Your task to perform on an android device: Go to Maps Image 0: 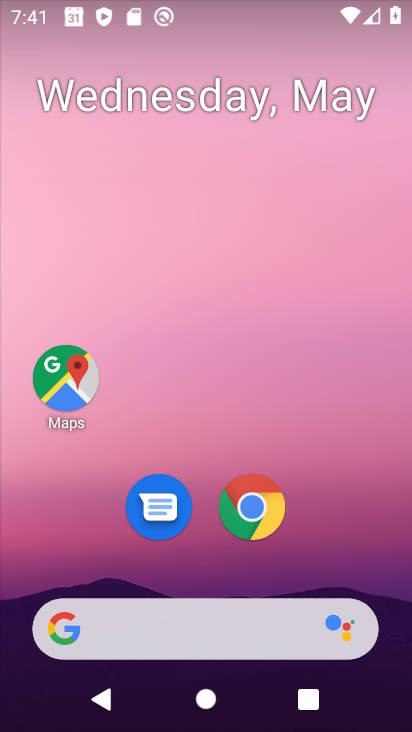
Step 0: click (53, 371)
Your task to perform on an android device: Go to Maps Image 1: 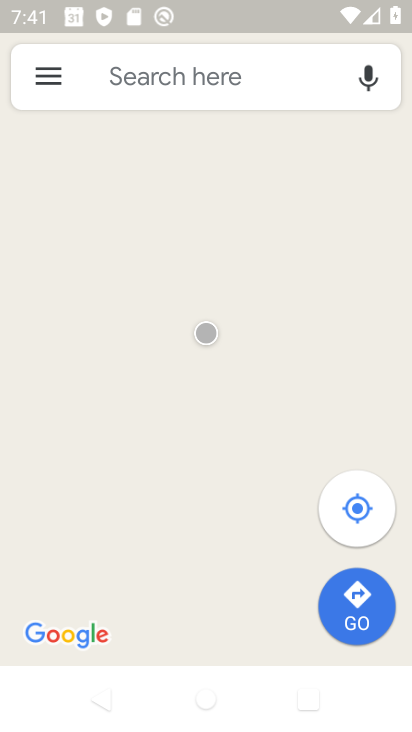
Step 1: task complete